Your task to perform on an android device: Play the last video I watched on Youtube Image 0: 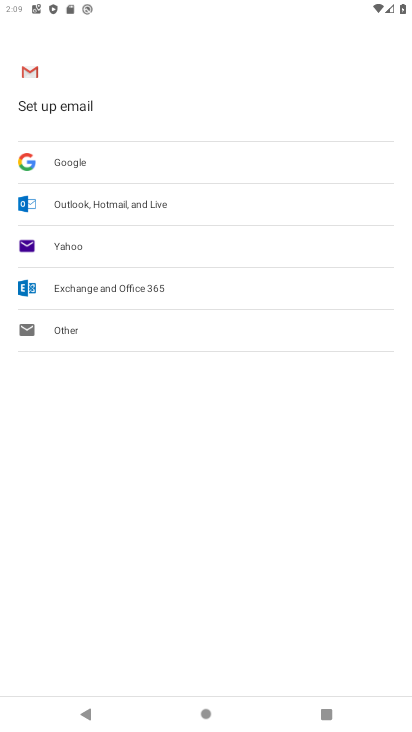
Step 0: press home button
Your task to perform on an android device: Play the last video I watched on Youtube Image 1: 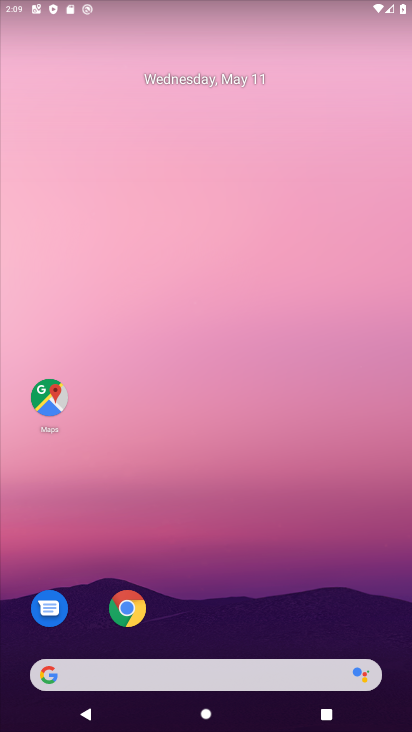
Step 1: drag from (290, 558) to (277, 224)
Your task to perform on an android device: Play the last video I watched on Youtube Image 2: 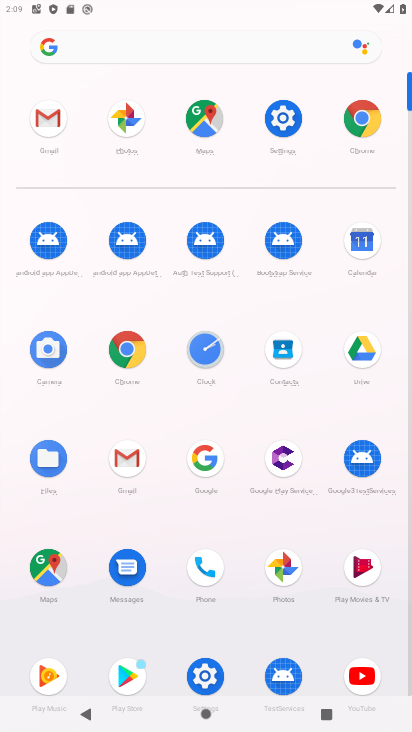
Step 2: click (363, 683)
Your task to perform on an android device: Play the last video I watched on Youtube Image 3: 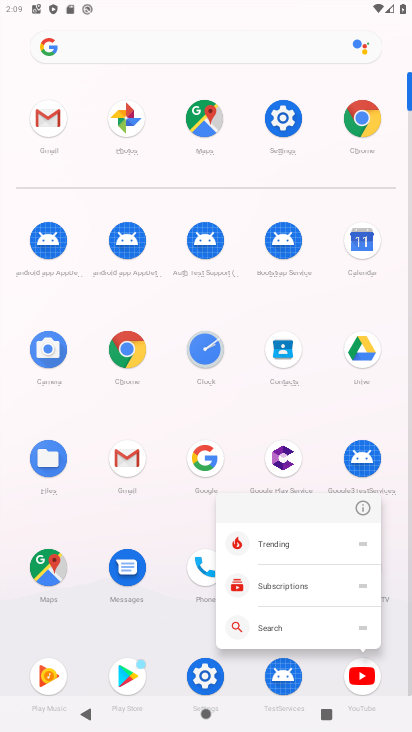
Step 3: click (365, 678)
Your task to perform on an android device: Play the last video I watched on Youtube Image 4: 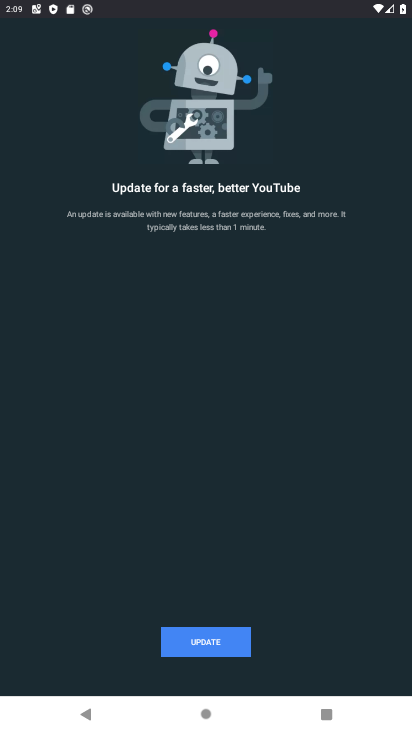
Step 4: click (185, 644)
Your task to perform on an android device: Play the last video I watched on Youtube Image 5: 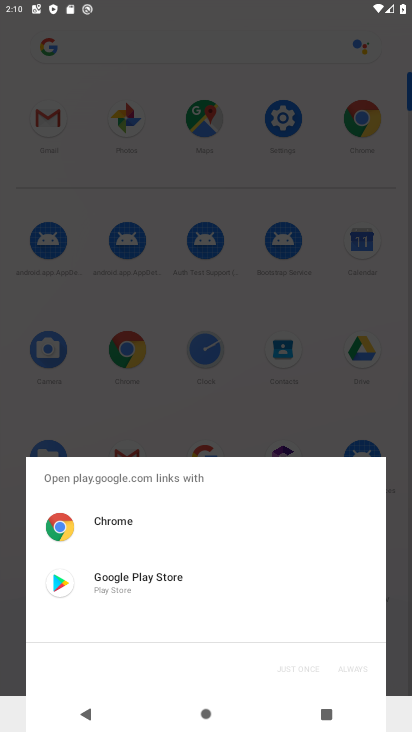
Step 5: click (198, 599)
Your task to perform on an android device: Play the last video I watched on Youtube Image 6: 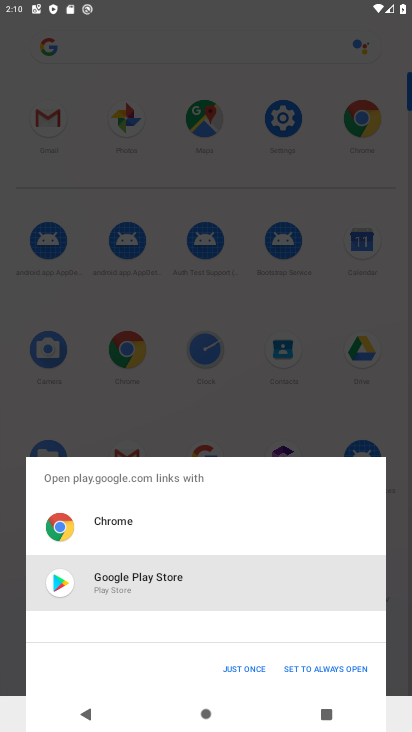
Step 6: click (251, 672)
Your task to perform on an android device: Play the last video I watched on Youtube Image 7: 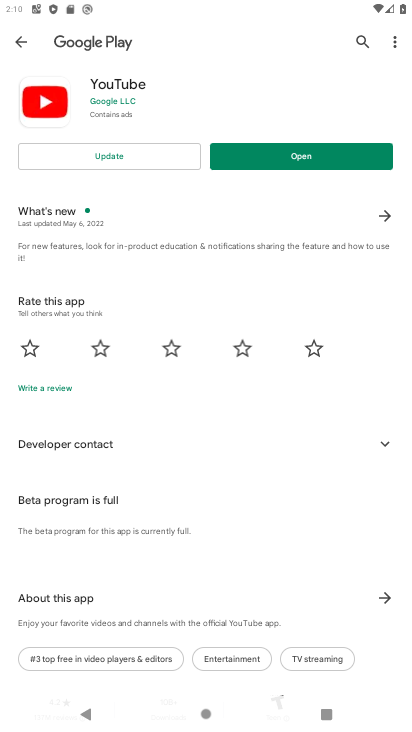
Step 7: click (47, 155)
Your task to perform on an android device: Play the last video I watched on Youtube Image 8: 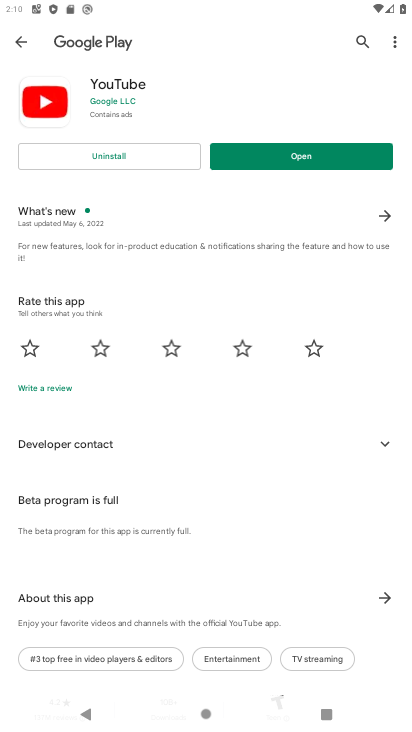
Step 8: click (343, 163)
Your task to perform on an android device: Play the last video I watched on Youtube Image 9: 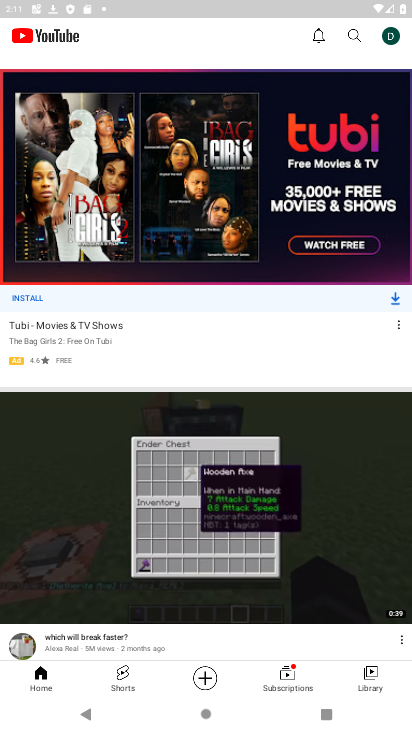
Step 9: click (354, 668)
Your task to perform on an android device: Play the last video I watched on Youtube Image 10: 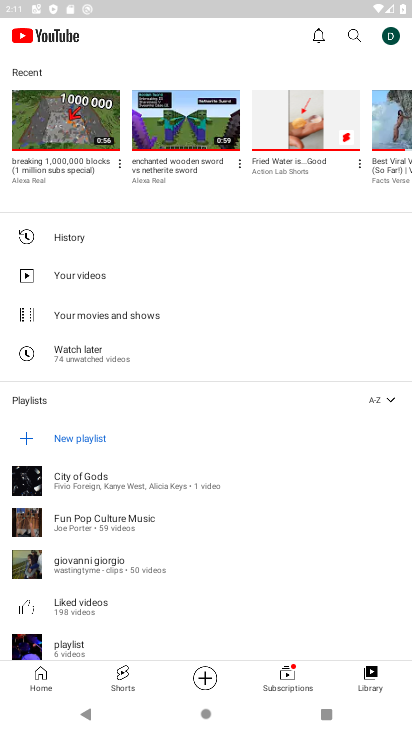
Step 10: click (93, 138)
Your task to perform on an android device: Play the last video I watched on Youtube Image 11: 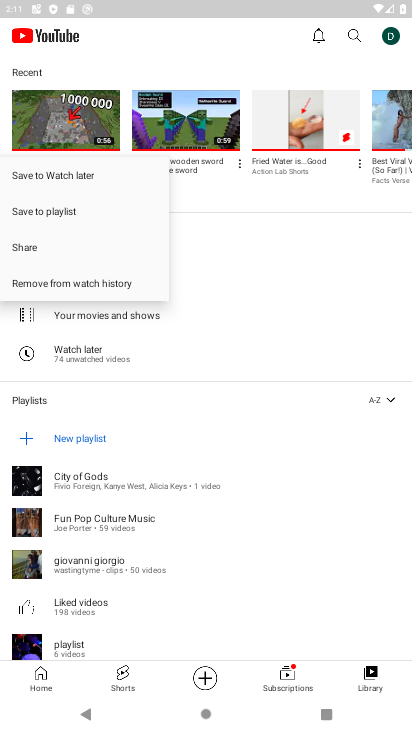
Step 11: click (90, 125)
Your task to perform on an android device: Play the last video I watched on Youtube Image 12: 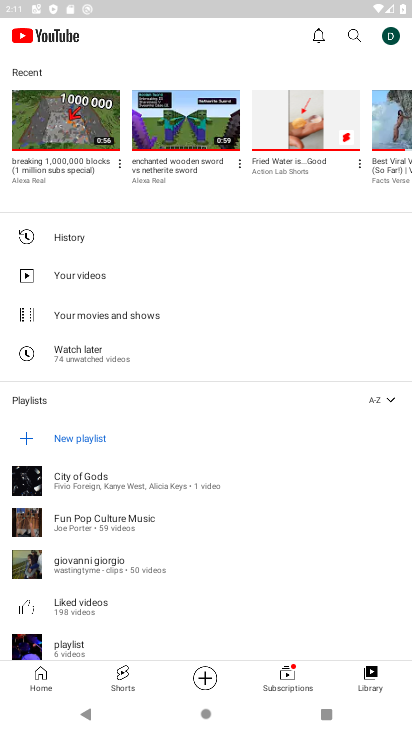
Step 12: click (89, 124)
Your task to perform on an android device: Play the last video I watched on Youtube Image 13: 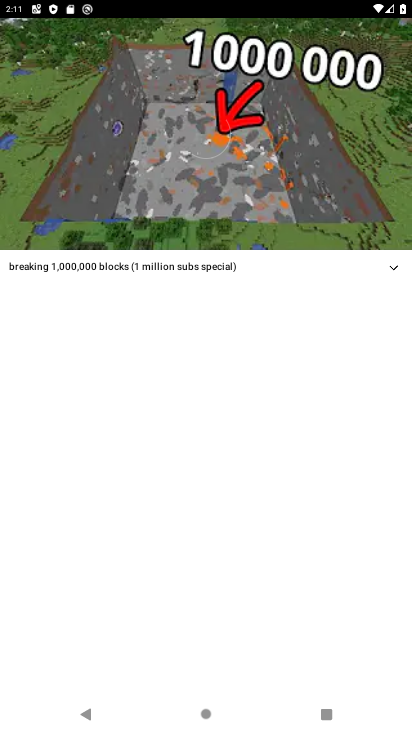
Step 13: click (81, 125)
Your task to perform on an android device: Play the last video I watched on Youtube Image 14: 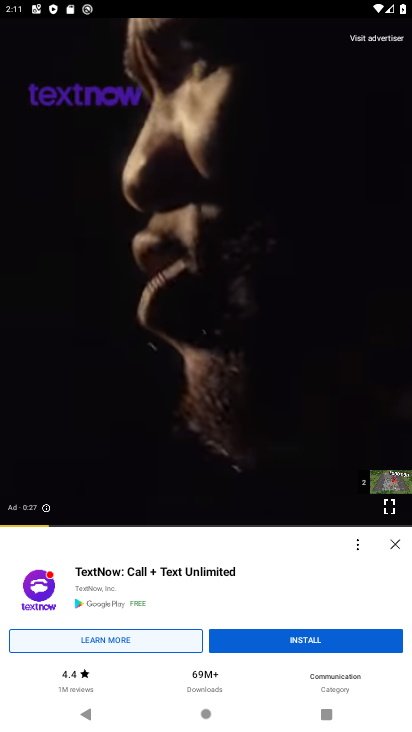
Step 14: task complete